Your task to perform on an android device: Open Google Maps Image 0: 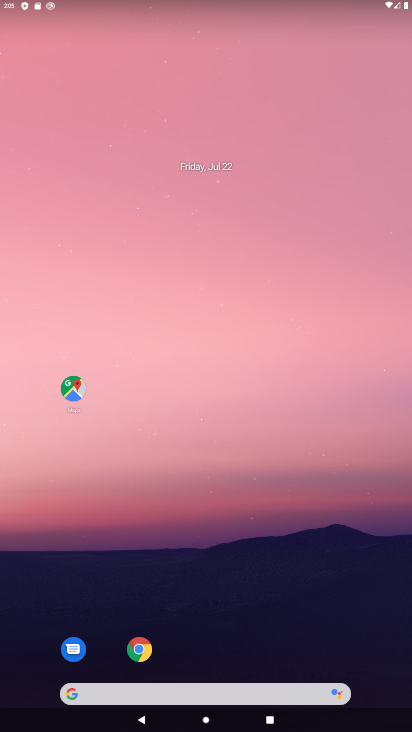
Step 0: drag from (163, 13) to (105, 4)
Your task to perform on an android device: Open Google Maps Image 1: 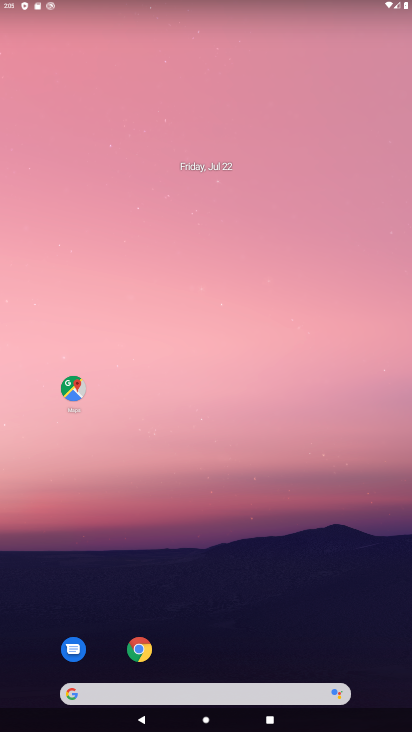
Step 1: drag from (192, 586) to (136, 10)
Your task to perform on an android device: Open Google Maps Image 2: 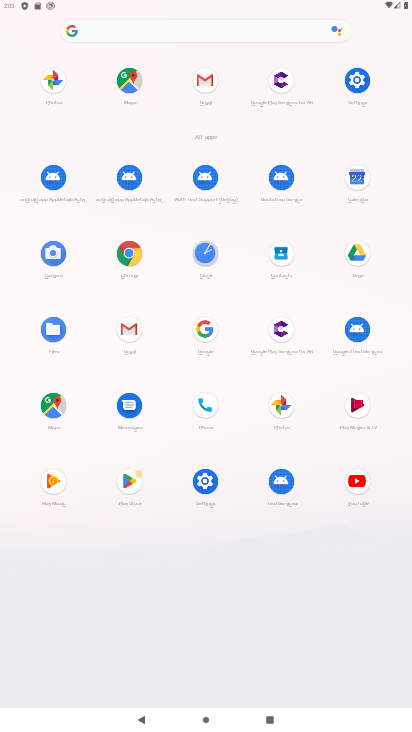
Step 2: click (46, 402)
Your task to perform on an android device: Open Google Maps Image 3: 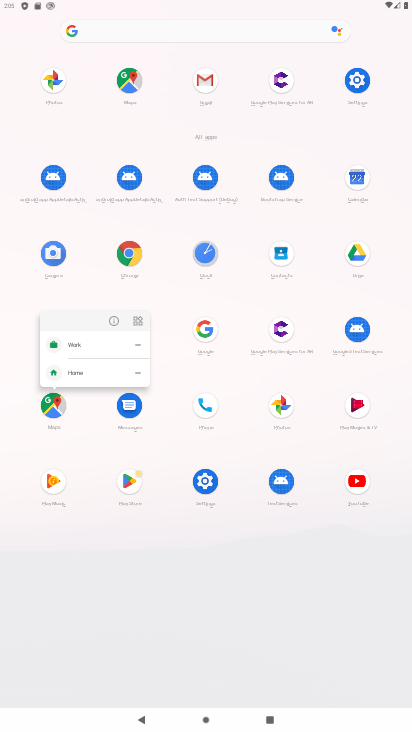
Step 3: click (111, 319)
Your task to perform on an android device: Open Google Maps Image 4: 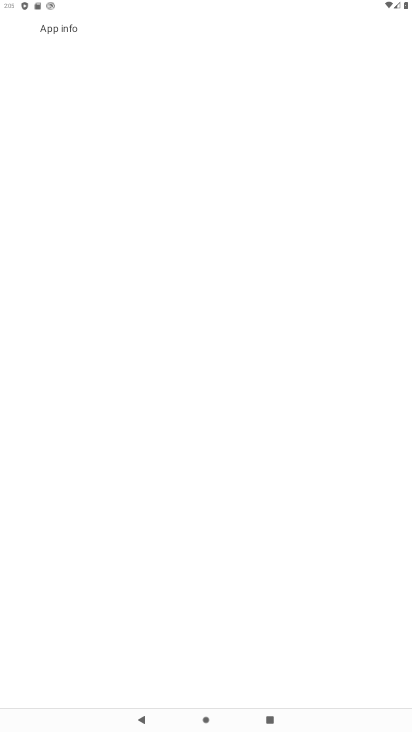
Step 4: drag from (234, 440) to (277, 304)
Your task to perform on an android device: Open Google Maps Image 5: 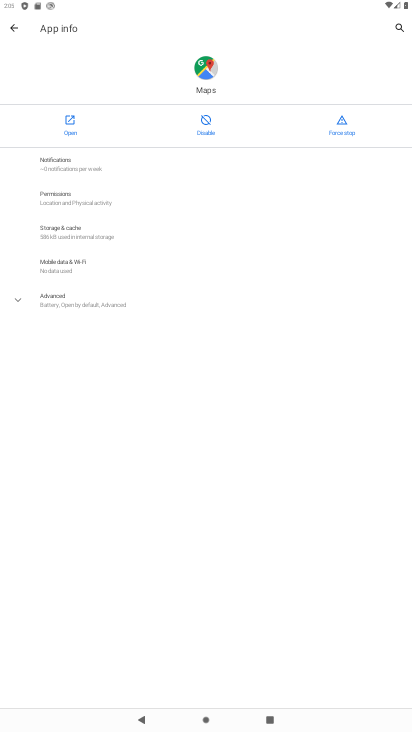
Step 5: click (72, 130)
Your task to perform on an android device: Open Google Maps Image 6: 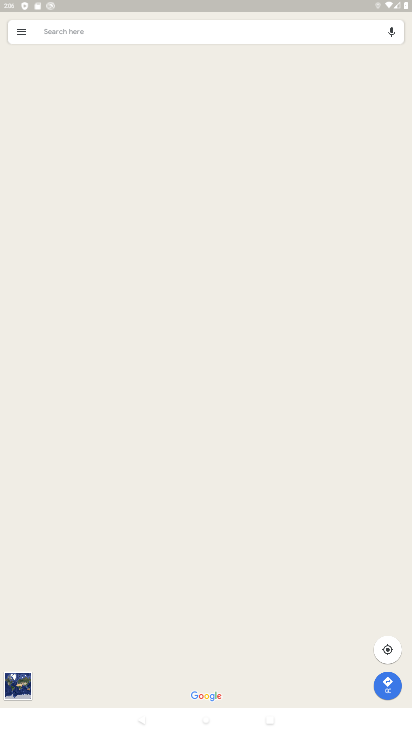
Step 6: task complete